Your task to perform on an android device: see sites visited before in the chrome app Image 0: 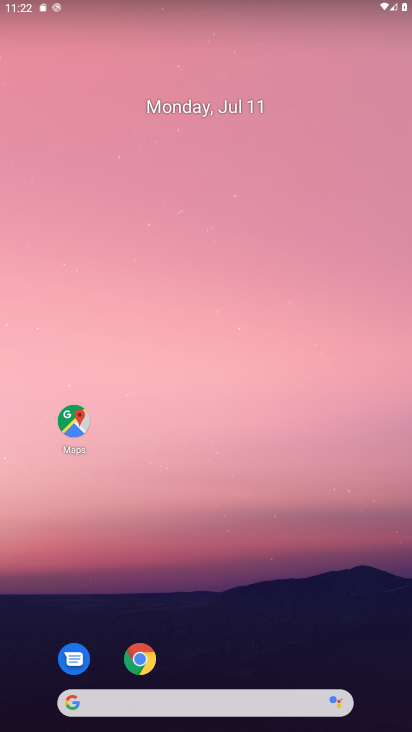
Step 0: drag from (203, 660) to (289, 260)
Your task to perform on an android device: see sites visited before in the chrome app Image 1: 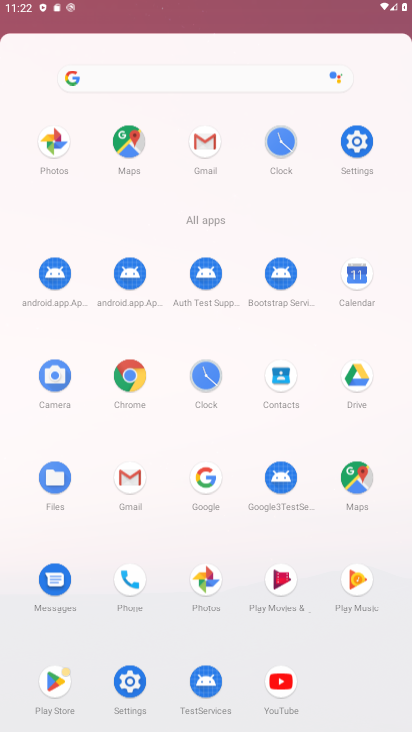
Step 1: drag from (262, 116) to (273, 77)
Your task to perform on an android device: see sites visited before in the chrome app Image 2: 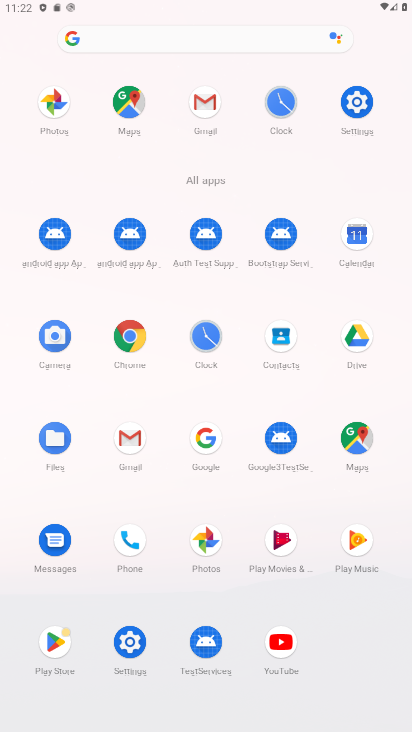
Step 2: click (123, 333)
Your task to perform on an android device: see sites visited before in the chrome app Image 3: 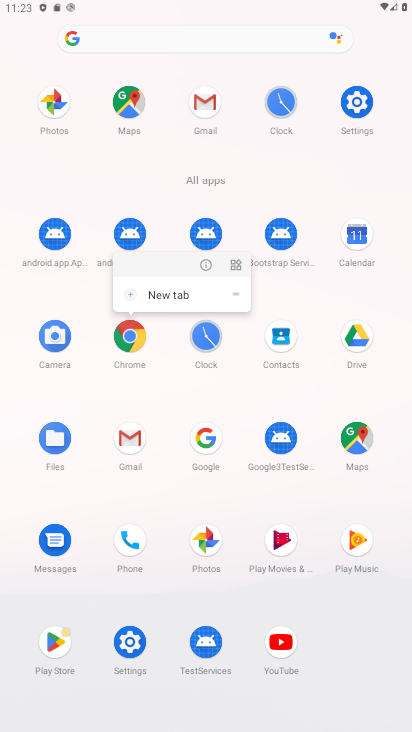
Step 3: click (197, 266)
Your task to perform on an android device: see sites visited before in the chrome app Image 4: 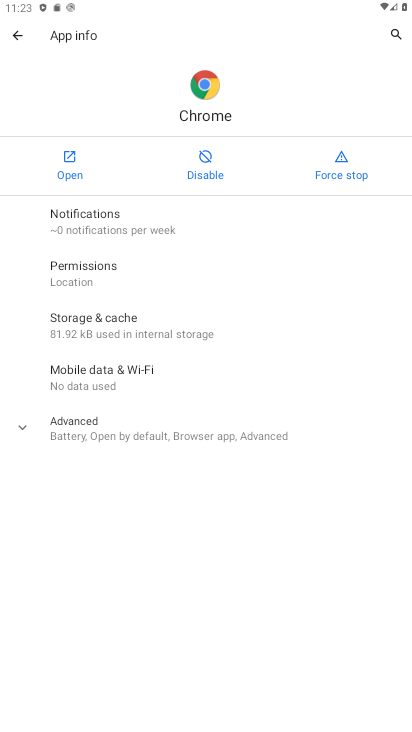
Step 4: click (60, 174)
Your task to perform on an android device: see sites visited before in the chrome app Image 5: 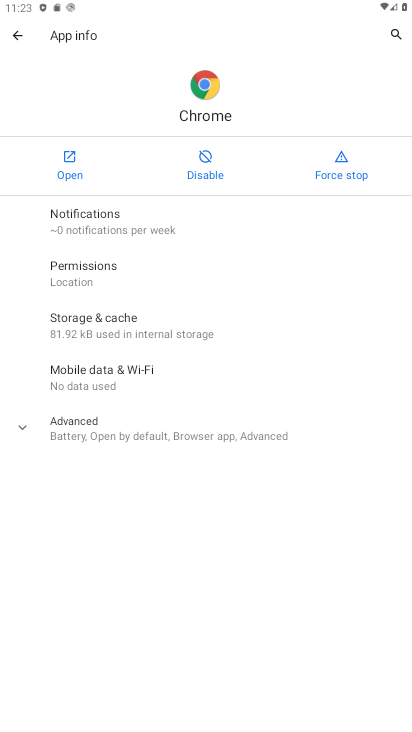
Step 5: click (62, 172)
Your task to perform on an android device: see sites visited before in the chrome app Image 6: 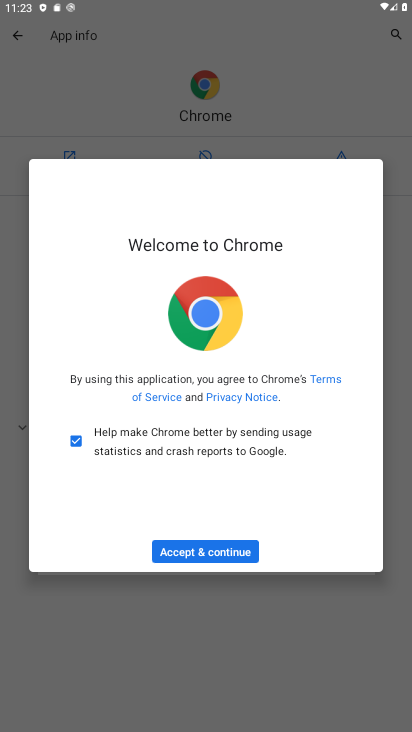
Step 6: click (185, 568)
Your task to perform on an android device: see sites visited before in the chrome app Image 7: 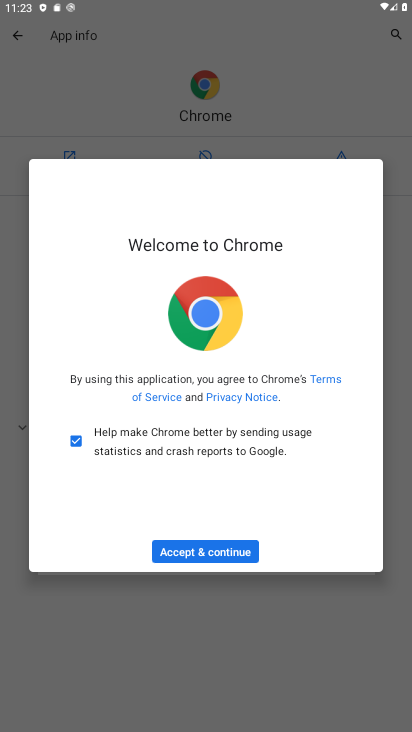
Step 7: click (181, 559)
Your task to perform on an android device: see sites visited before in the chrome app Image 8: 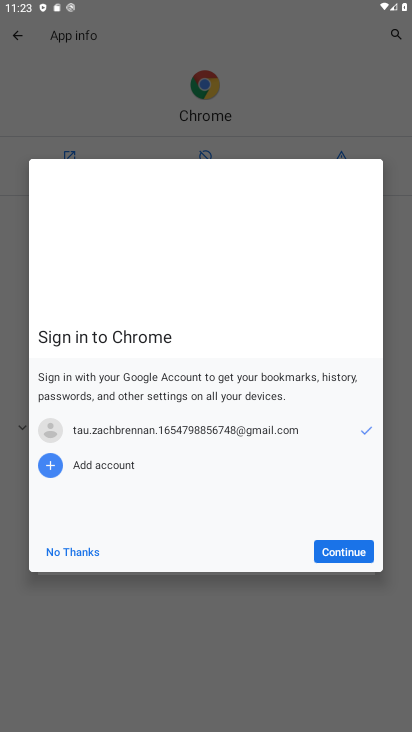
Step 8: click (81, 553)
Your task to perform on an android device: see sites visited before in the chrome app Image 9: 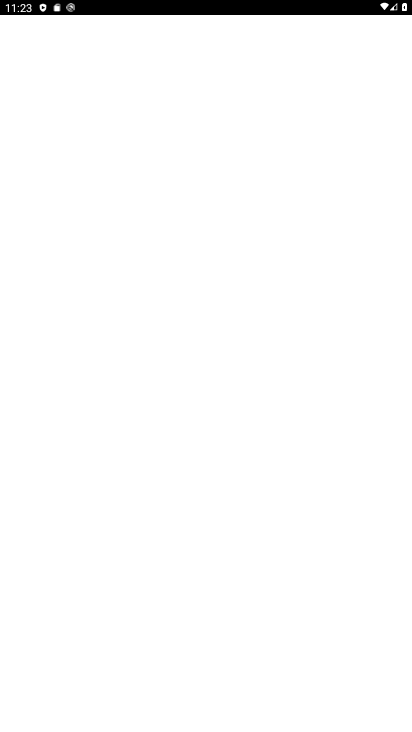
Step 9: drag from (228, 669) to (335, 242)
Your task to perform on an android device: see sites visited before in the chrome app Image 10: 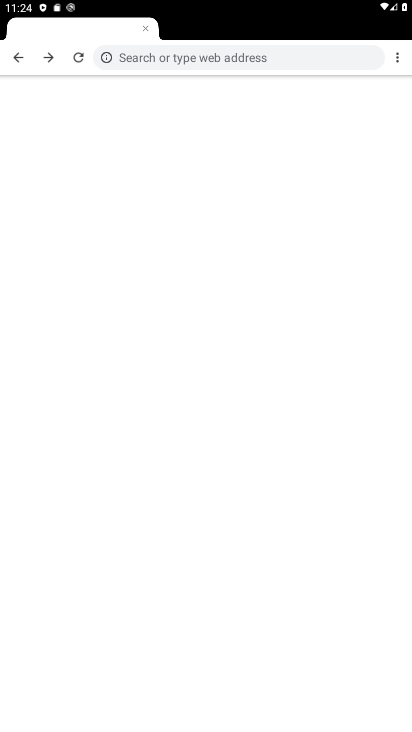
Step 10: click (240, 282)
Your task to perform on an android device: see sites visited before in the chrome app Image 11: 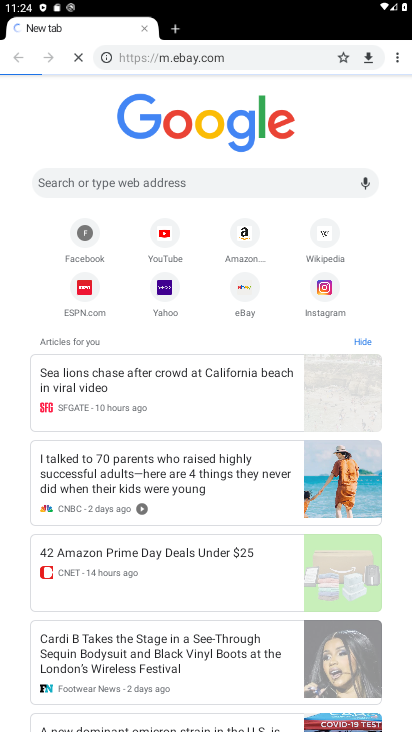
Step 11: click (399, 61)
Your task to perform on an android device: see sites visited before in the chrome app Image 12: 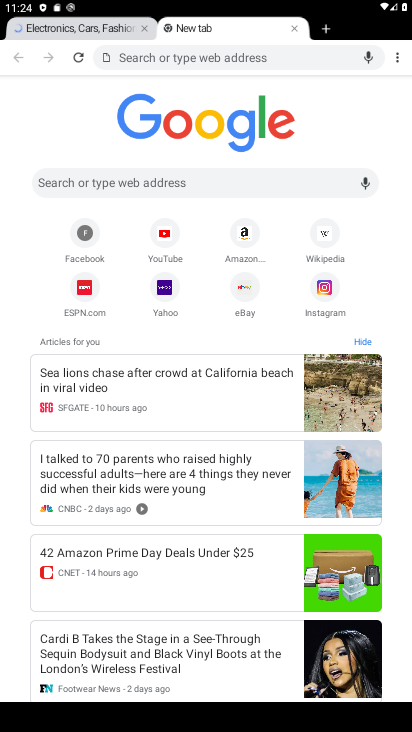
Step 12: click (395, 57)
Your task to perform on an android device: see sites visited before in the chrome app Image 13: 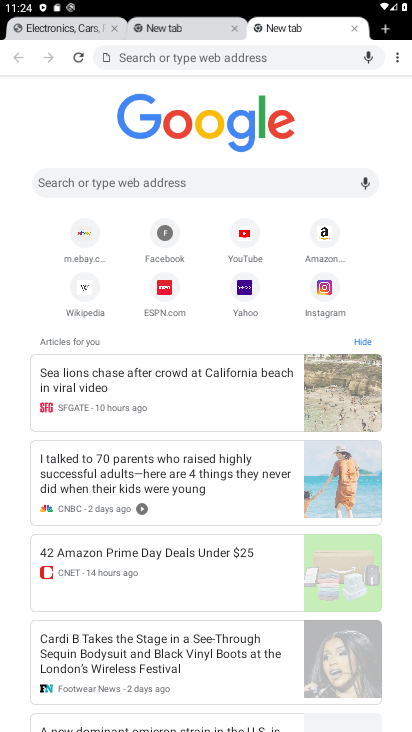
Step 13: task complete